Your task to perform on an android device: Open Chrome and go to settings Image 0: 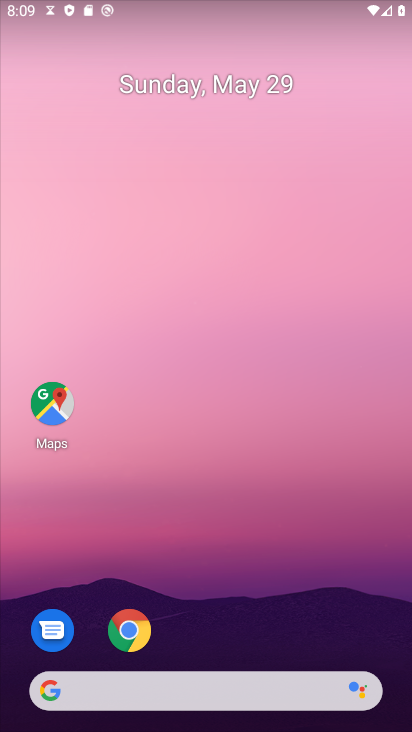
Step 0: click (135, 624)
Your task to perform on an android device: Open Chrome and go to settings Image 1: 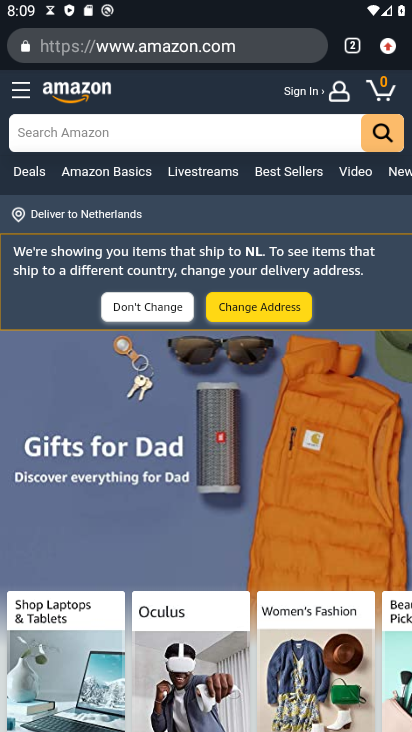
Step 1: click (398, 43)
Your task to perform on an android device: Open Chrome and go to settings Image 2: 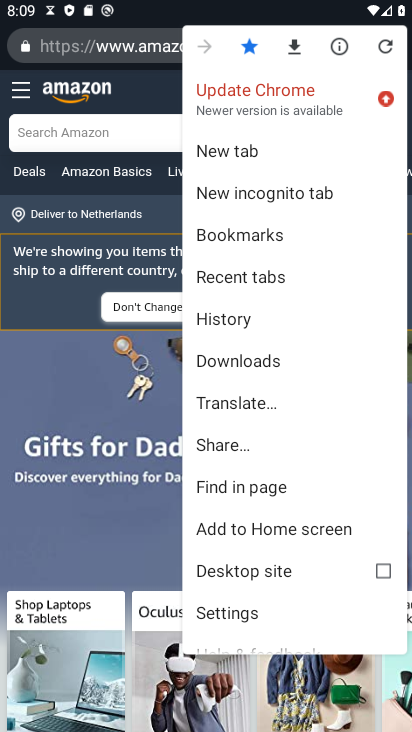
Step 2: click (210, 609)
Your task to perform on an android device: Open Chrome and go to settings Image 3: 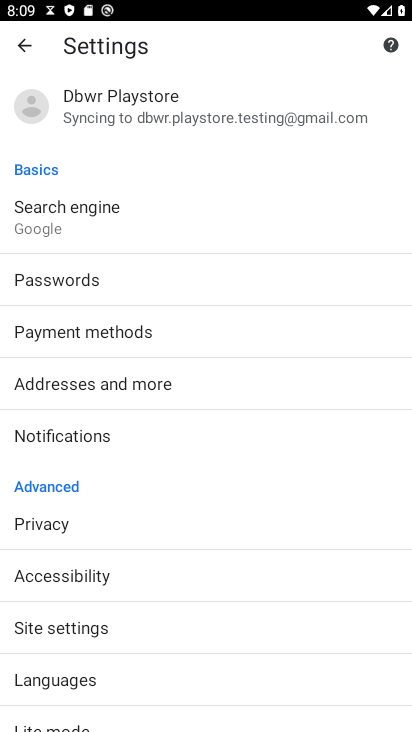
Step 3: task complete